Your task to perform on an android device: Open settings on Google Maps Image 0: 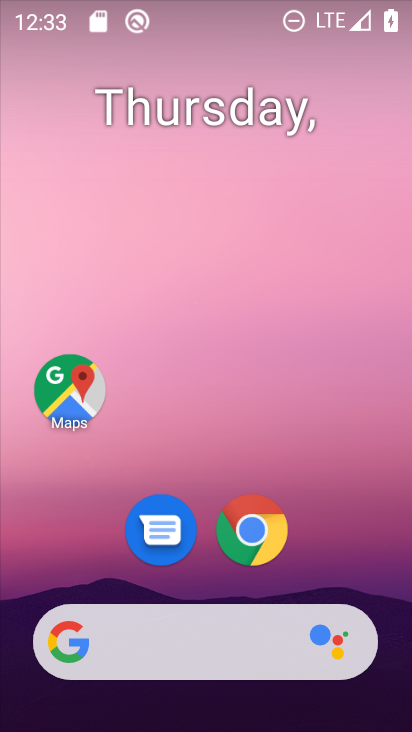
Step 0: click (78, 388)
Your task to perform on an android device: Open settings on Google Maps Image 1: 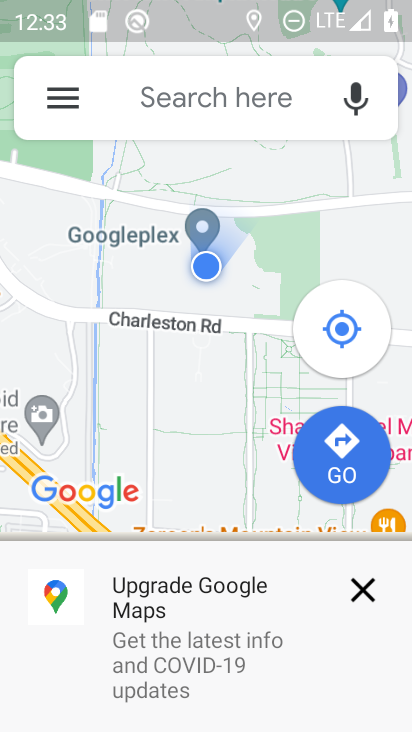
Step 1: click (74, 109)
Your task to perform on an android device: Open settings on Google Maps Image 2: 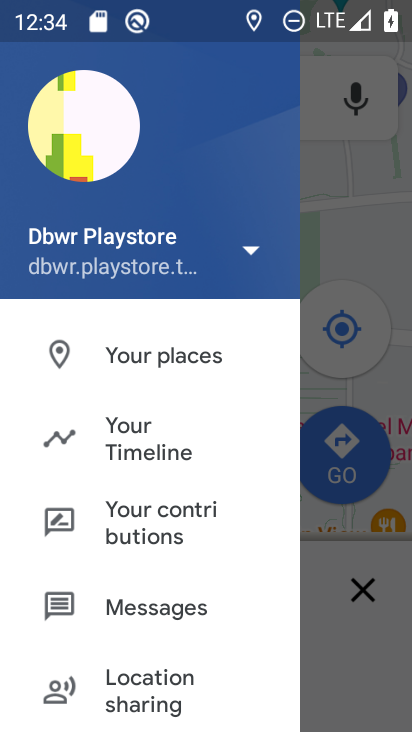
Step 2: drag from (177, 589) to (140, 1)
Your task to perform on an android device: Open settings on Google Maps Image 3: 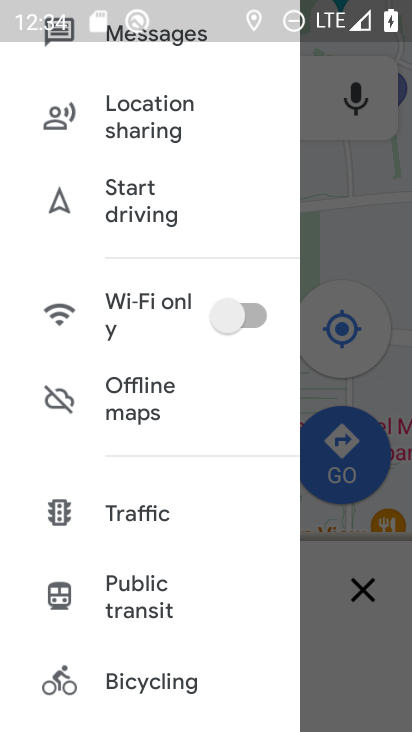
Step 3: drag from (113, 545) to (92, 11)
Your task to perform on an android device: Open settings on Google Maps Image 4: 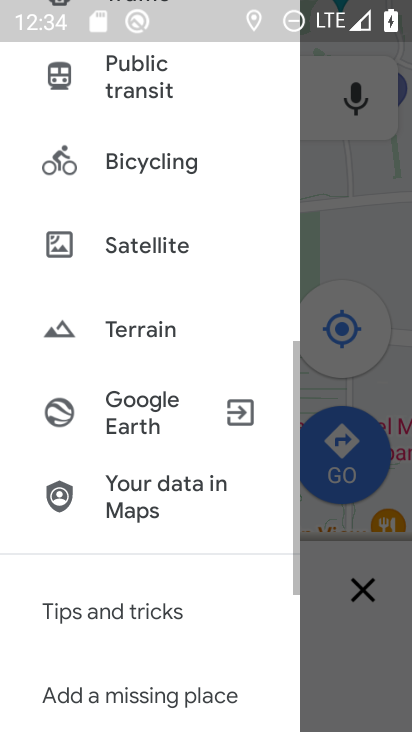
Step 4: drag from (168, 611) to (155, 38)
Your task to perform on an android device: Open settings on Google Maps Image 5: 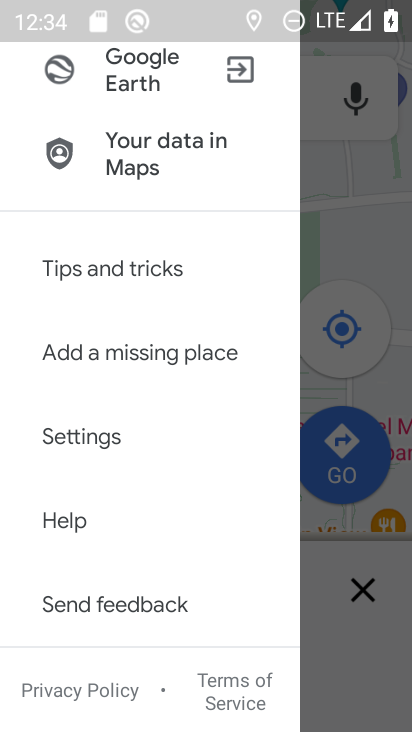
Step 5: click (107, 439)
Your task to perform on an android device: Open settings on Google Maps Image 6: 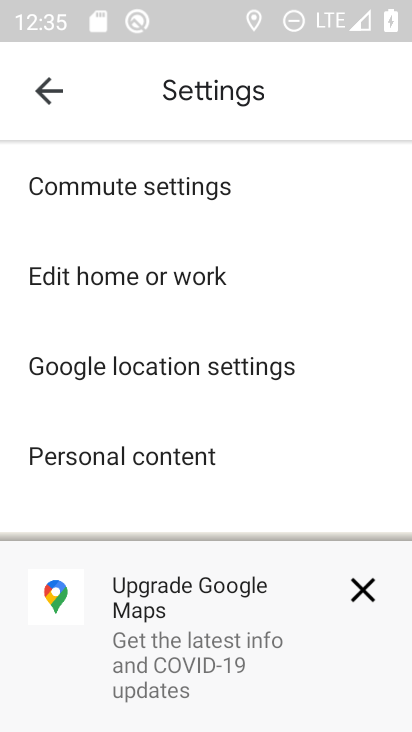
Step 6: task complete